Your task to perform on an android device: turn notification dots off Image 0: 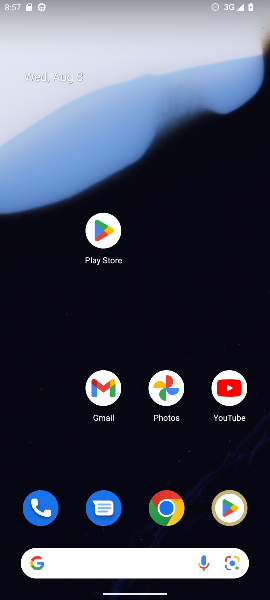
Step 0: drag from (119, 130) to (186, 8)
Your task to perform on an android device: turn notification dots off Image 1: 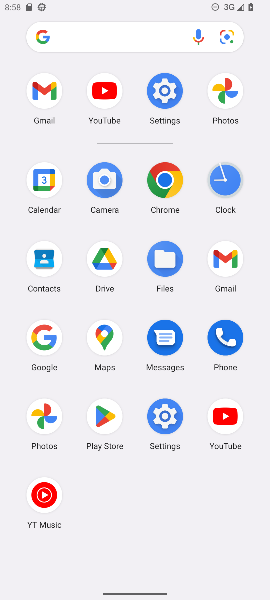
Step 1: click (161, 505)
Your task to perform on an android device: turn notification dots off Image 2: 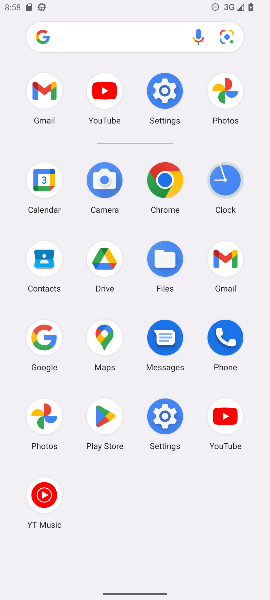
Step 2: click (155, 427)
Your task to perform on an android device: turn notification dots off Image 3: 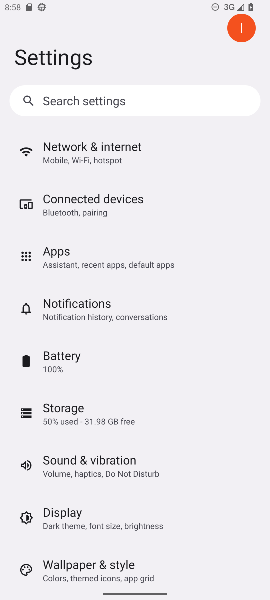
Step 3: click (97, 314)
Your task to perform on an android device: turn notification dots off Image 4: 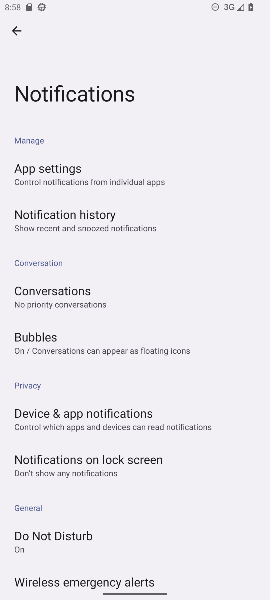
Step 4: drag from (87, 519) to (52, 118)
Your task to perform on an android device: turn notification dots off Image 5: 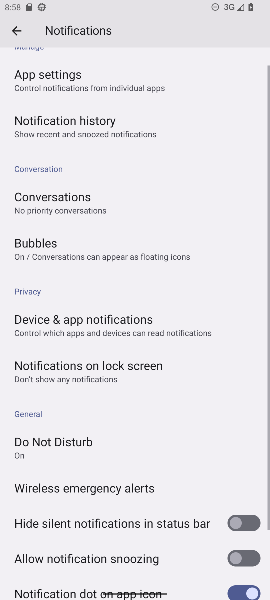
Step 5: drag from (85, 237) to (92, 331)
Your task to perform on an android device: turn notification dots off Image 6: 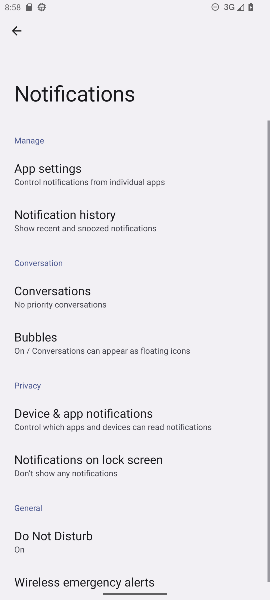
Step 6: drag from (136, 520) to (123, 72)
Your task to perform on an android device: turn notification dots off Image 7: 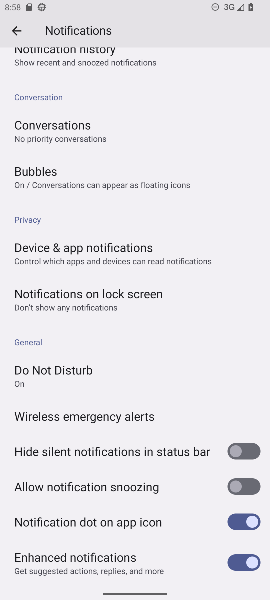
Step 7: click (247, 517)
Your task to perform on an android device: turn notification dots off Image 8: 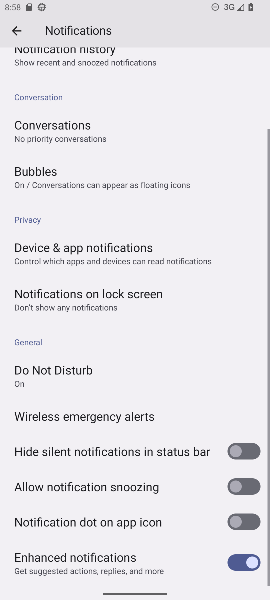
Step 8: task complete